Your task to perform on an android device: toggle notifications settings in the gmail app Image 0: 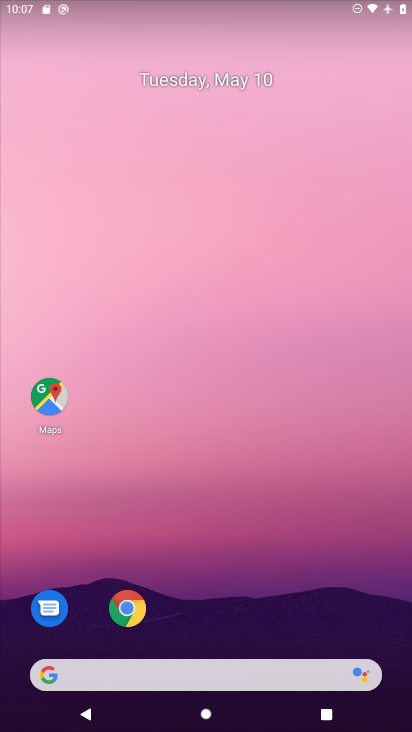
Step 0: drag from (231, 634) to (276, 292)
Your task to perform on an android device: toggle notifications settings in the gmail app Image 1: 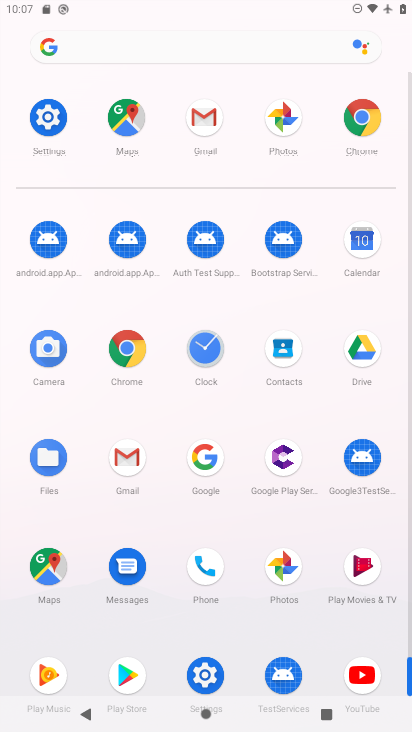
Step 1: click (199, 117)
Your task to perform on an android device: toggle notifications settings in the gmail app Image 2: 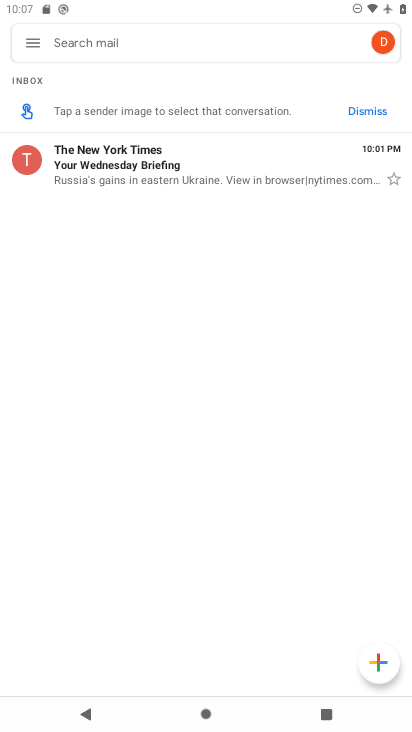
Step 2: click (26, 42)
Your task to perform on an android device: toggle notifications settings in the gmail app Image 3: 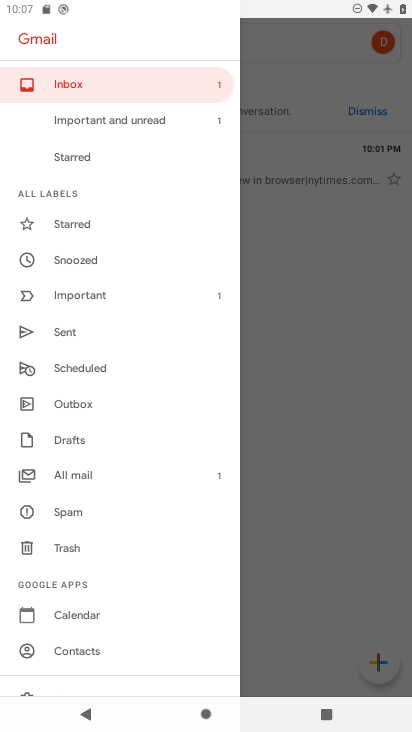
Step 3: drag from (89, 649) to (114, 494)
Your task to perform on an android device: toggle notifications settings in the gmail app Image 4: 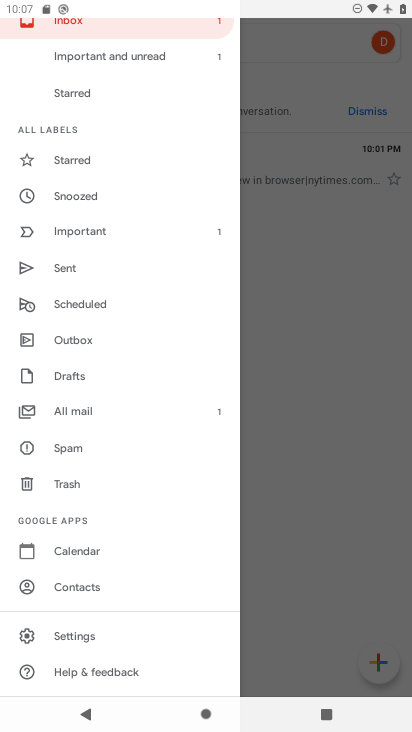
Step 4: click (107, 631)
Your task to perform on an android device: toggle notifications settings in the gmail app Image 5: 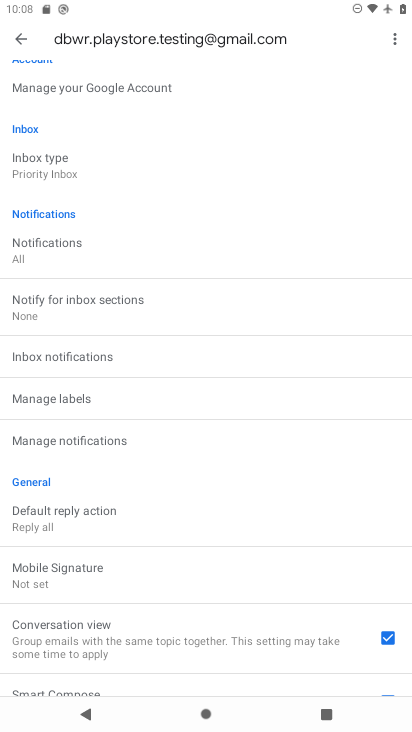
Step 5: click (63, 254)
Your task to perform on an android device: toggle notifications settings in the gmail app Image 6: 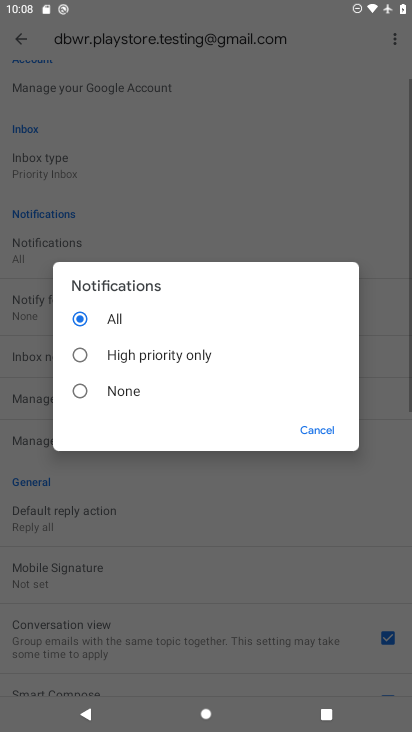
Step 6: click (101, 390)
Your task to perform on an android device: toggle notifications settings in the gmail app Image 7: 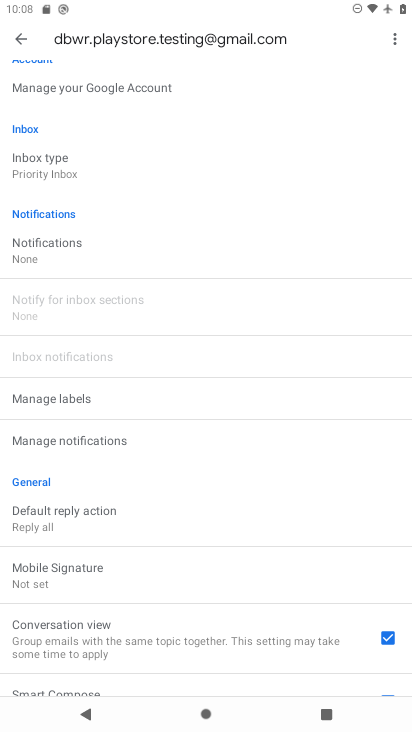
Step 7: task complete